Your task to perform on an android device: turn on translation in the chrome app Image 0: 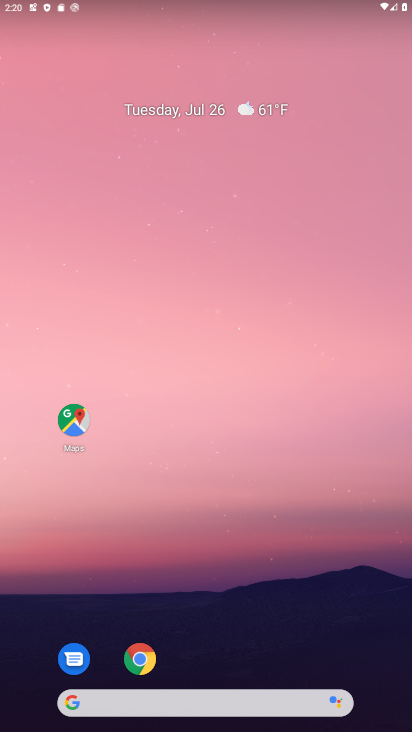
Step 0: click (138, 666)
Your task to perform on an android device: turn on translation in the chrome app Image 1: 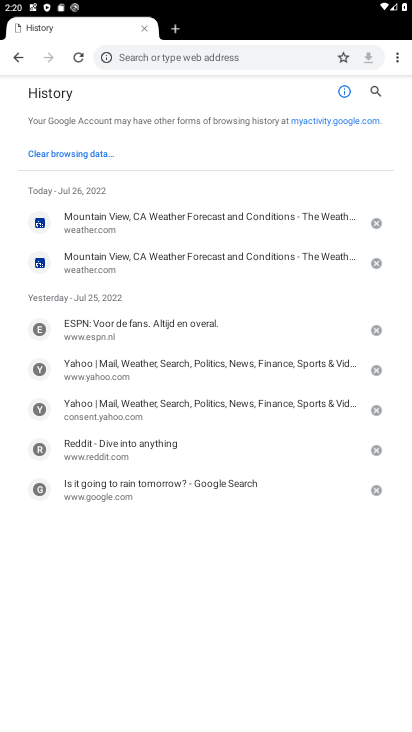
Step 1: click (400, 52)
Your task to perform on an android device: turn on translation in the chrome app Image 2: 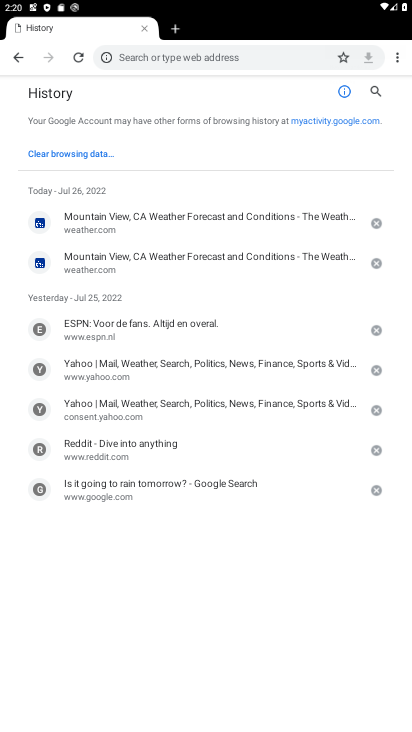
Step 2: click (400, 53)
Your task to perform on an android device: turn on translation in the chrome app Image 3: 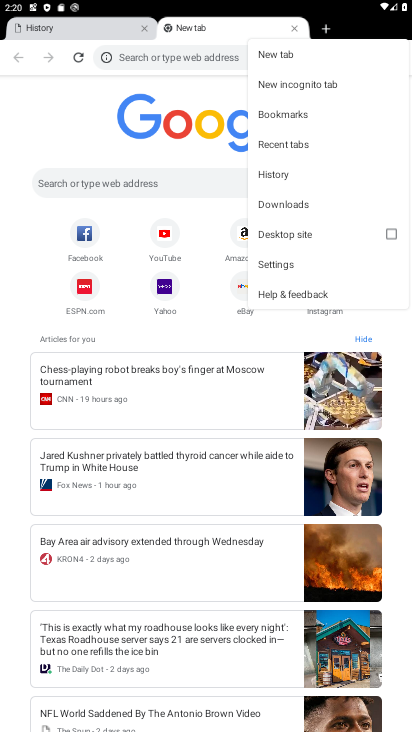
Step 3: click (282, 258)
Your task to perform on an android device: turn on translation in the chrome app Image 4: 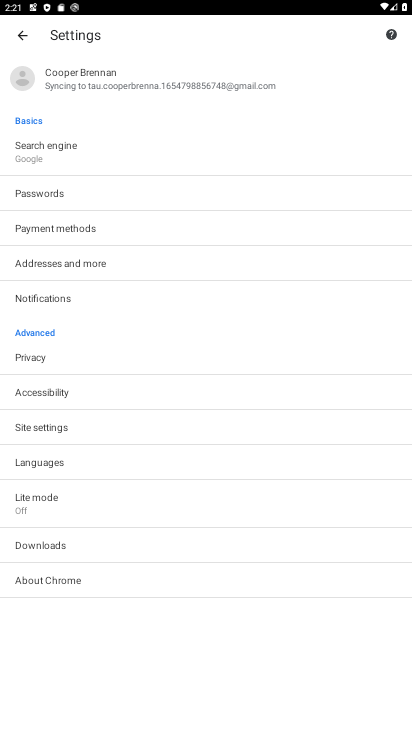
Step 4: click (47, 465)
Your task to perform on an android device: turn on translation in the chrome app Image 5: 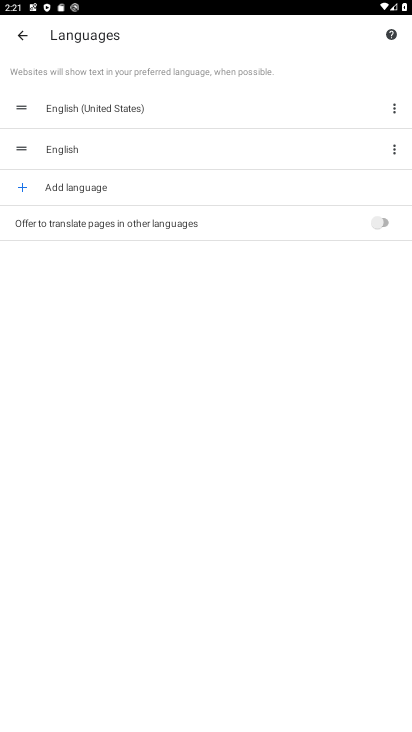
Step 5: click (388, 223)
Your task to perform on an android device: turn on translation in the chrome app Image 6: 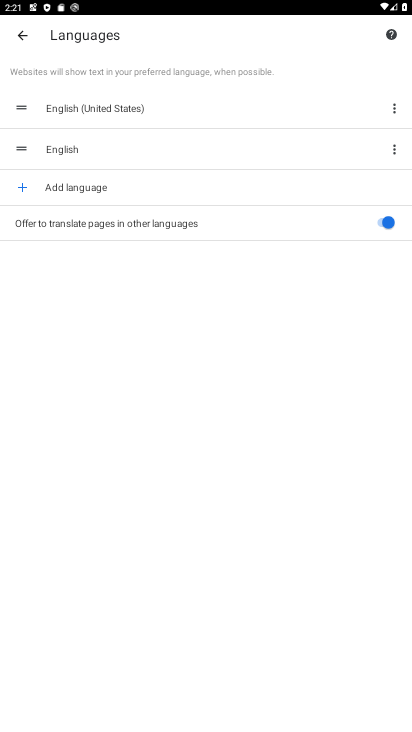
Step 6: task complete